Your task to perform on an android device: Show me the alarms in the clock app Image 0: 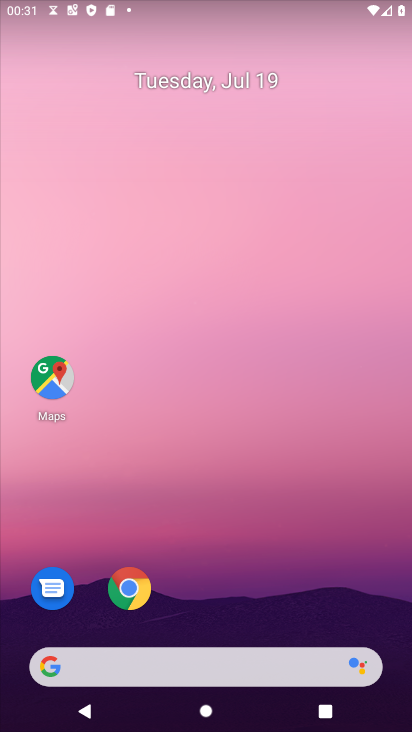
Step 0: drag from (235, 661) to (294, 189)
Your task to perform on an android device: Show me the alarms in the clock app Image 1: 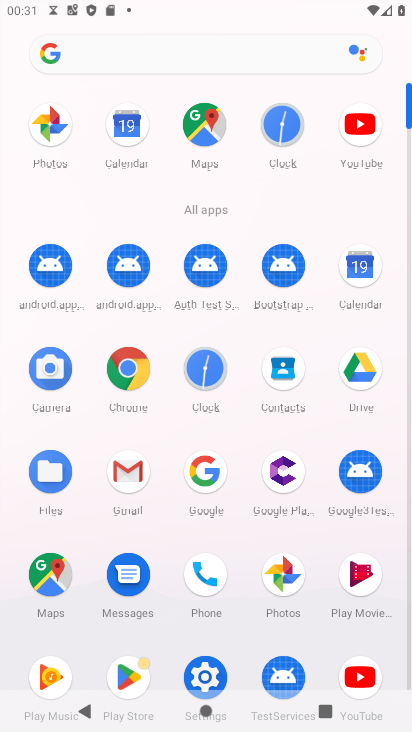
Step 1: click (211, 351)
Your task to perform on an android device: Show me the alarms in the clock app Image 2: 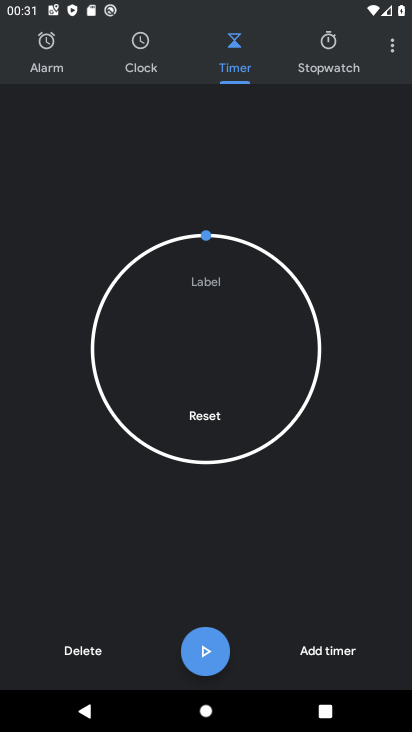
Step 2: click (45, 59)
Your task to perform on an android device: Show me the alarms in the clock app Image 3: 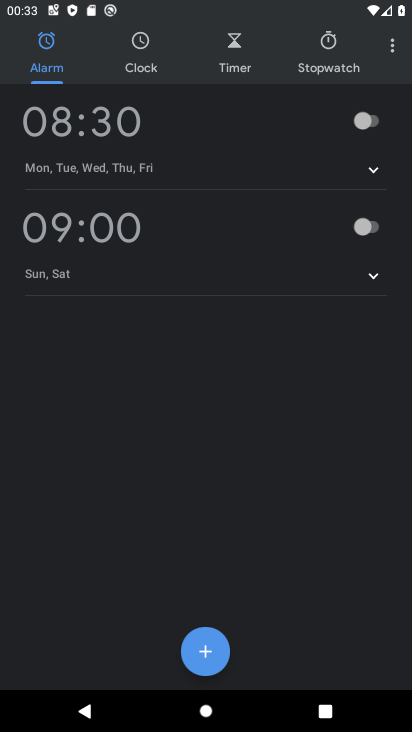
Step 3: task complete